Your task to perform on an android device: turn off picture-in-picture Image 0: 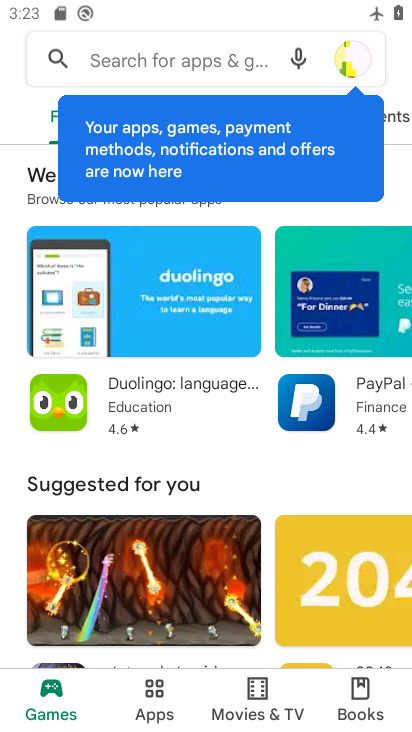
Step 0: press home button
Your task to perform on an android device: turn off picture-in-picture Image 1: 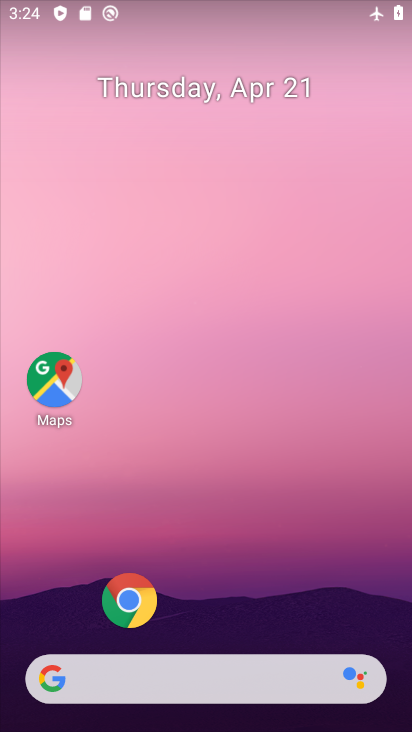
Step 1: drag from (241, 601) to (313, 189)
Your task to perform on an android device: turn off picture-in-picture Image 2: 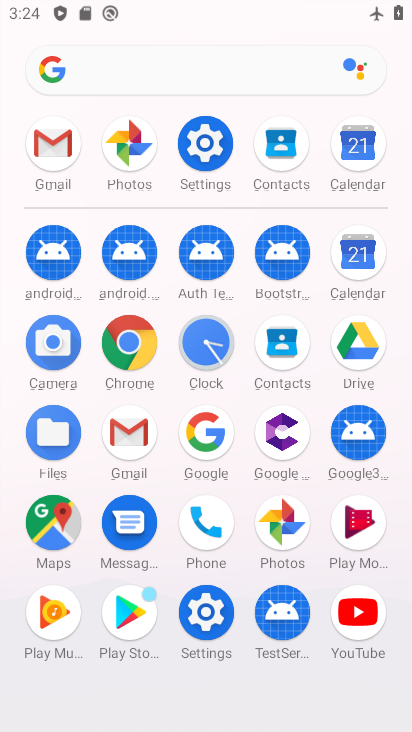
Step 2: click (194, 166)
Your task to perform on an android device: turn off picture-in-picture Image 3: 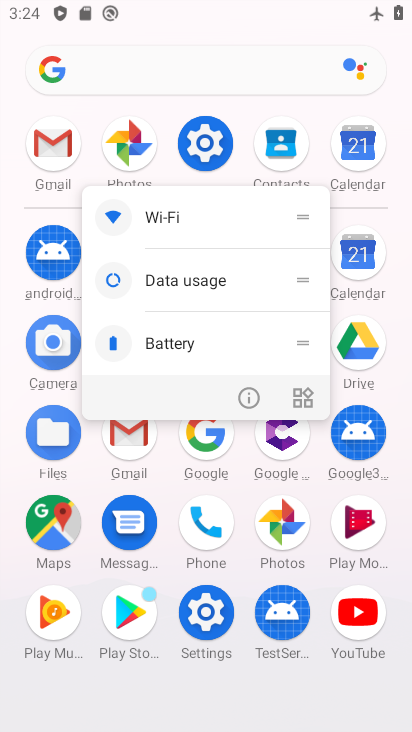
Step 3: click (255, 394)
Your task to perform on an android device: turn off picture-in-picture Image 4: 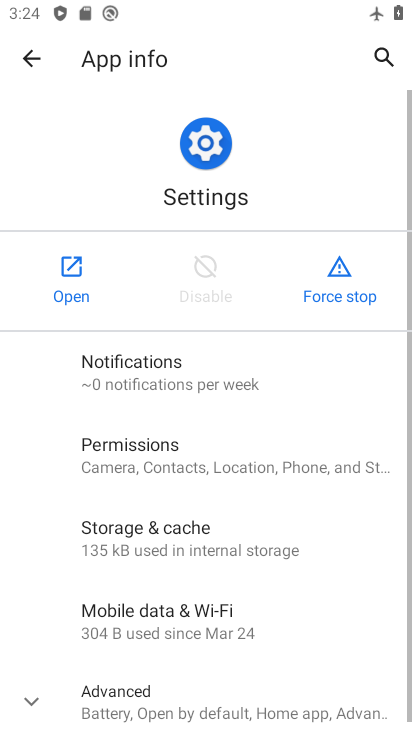
Step 4: click (83, 287)
Your task to perform on an android device: turn off picture-in-picture Image 5: 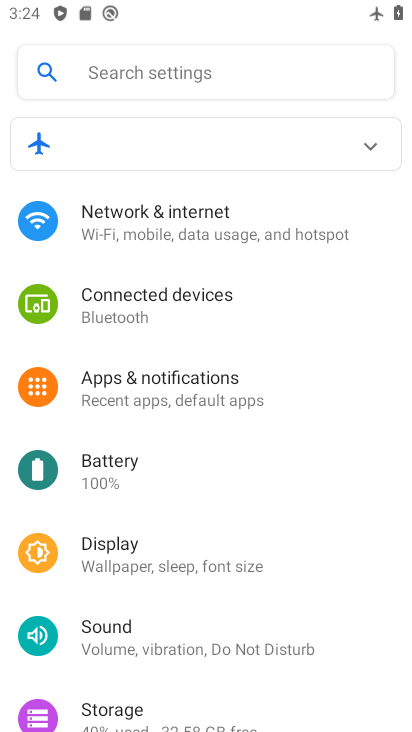
Step 5: click (204, 395)
Your task to perform on an android device: turn off picture-in-picture Image 6: 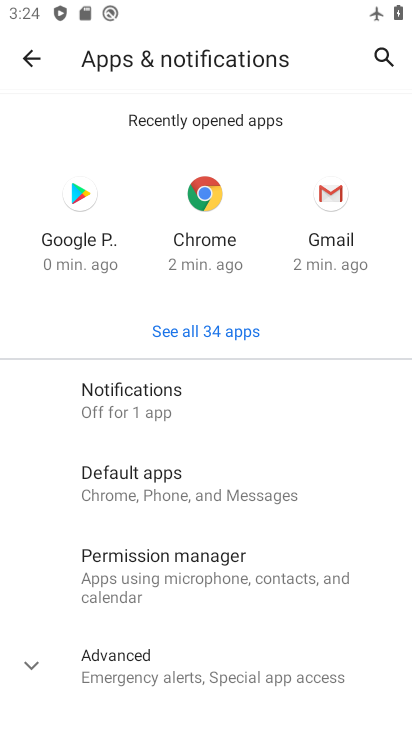
Step 6: drag from (215, 512) to (253, 253)
Your task to perform on an android device: turn off picture-in-picture Image 7: 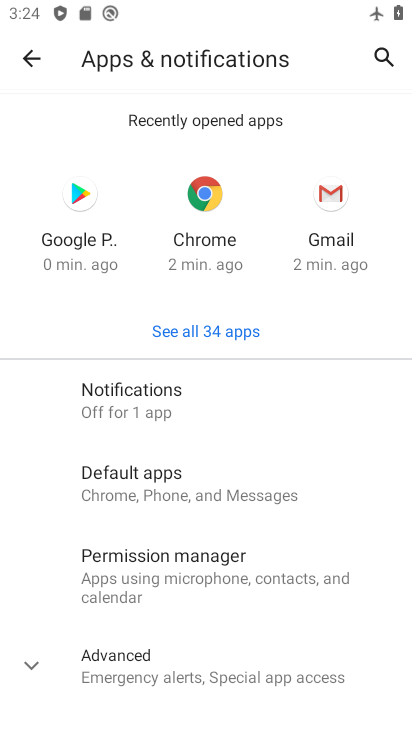
Step 7: click (157, 674)
Your task to perform on an android device: turn off picture-in-picture Image 8: 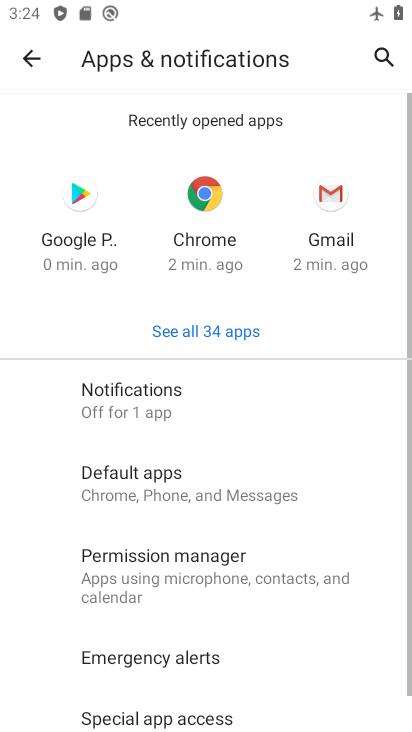
Step 8: drag from (170, 615) to (234, 368)
Your task to perform on an android device: turn off picture-in-picture Image 9: 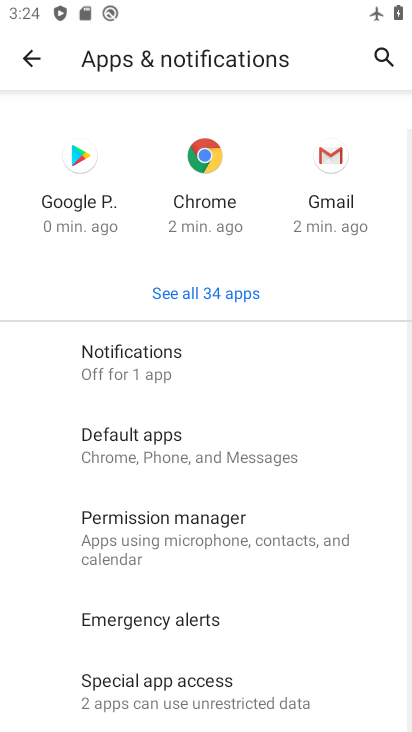
Step 9: drag from (192, 477) to (303, 218)
Your task to perform on an android device: turn off picture-in-picture Image 10: 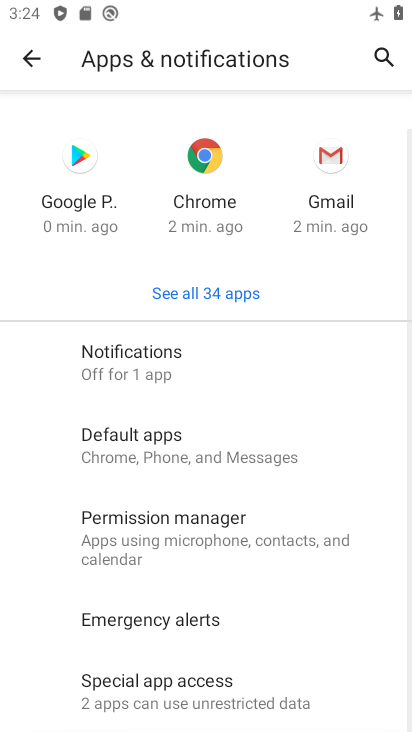
Step 10: click (199, 676)
Your task to perform on an android device: turn off picture-in-picture Image 11: 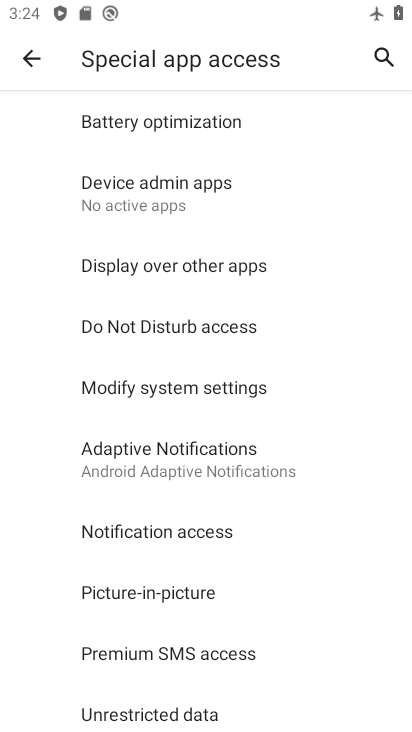
Step 11: drag from (375, 730) to (168, 594)
Your task to perform on an android device: turn off picture-in-picture Image 12: 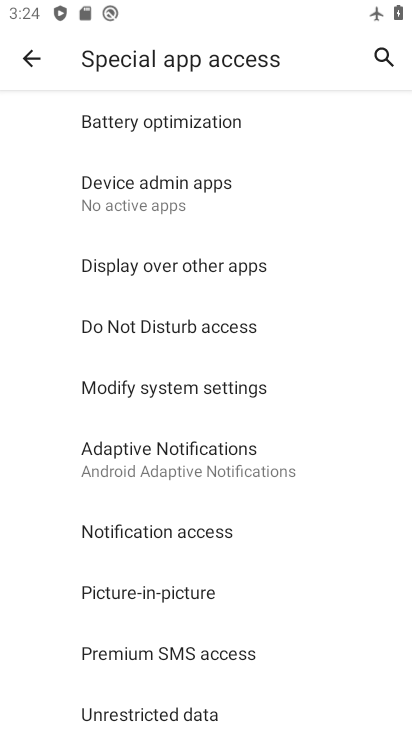
Step 12: click (203, 595)
Your task to perform on an android device: turn off picture-in-picture Image 13: 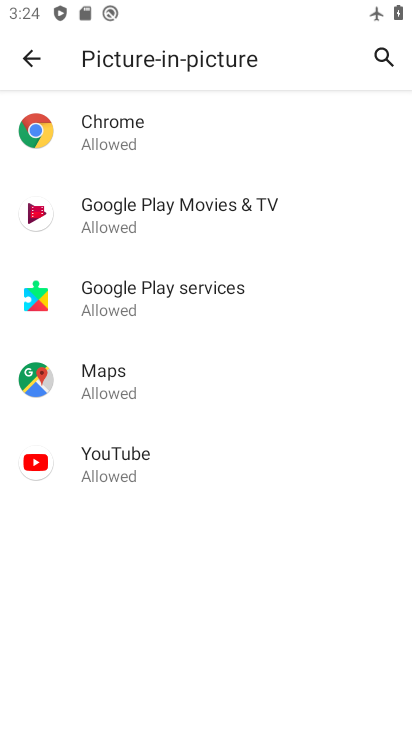
Step 13: click (204, 145)
Your task to perform on an android device: turn off picture-in-picture Image 14: 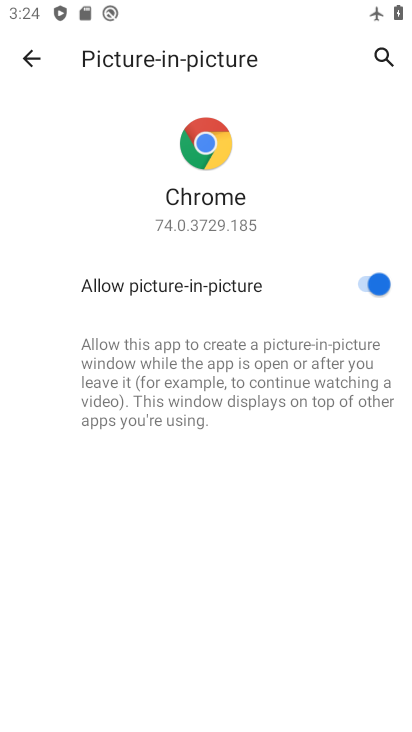
Step 14: click (367, 280)
Your task to perform on an android device: turn off picture-in-picture Image 15: 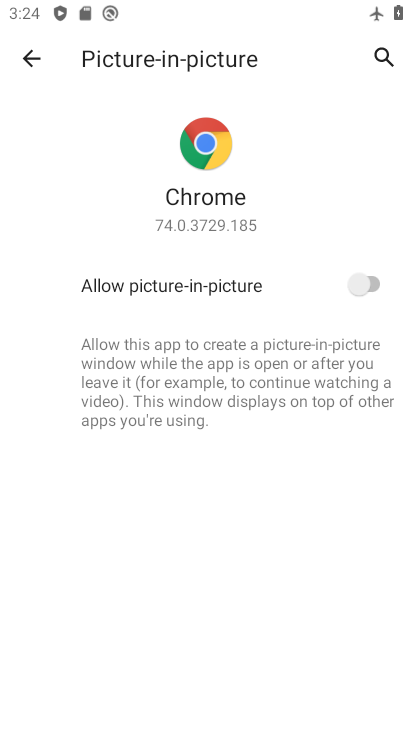
Step 15: task complete